Your task to perform on an android device: open a bookmark in the chrome app Image 0: 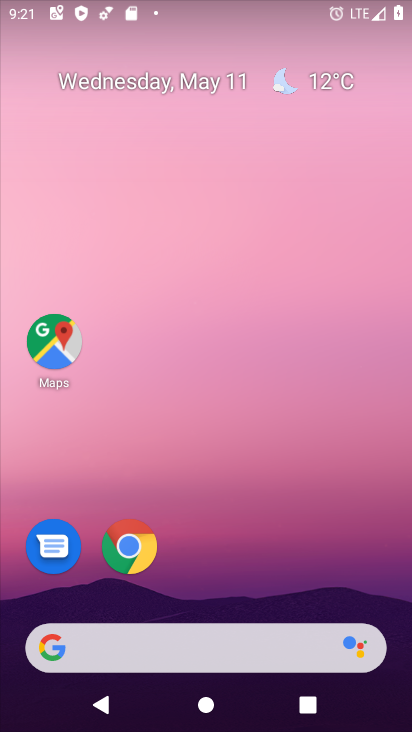
Step 0: click (131, 549)
Your task to perform on an android device: open a bookmark in the chrome app Image 1: 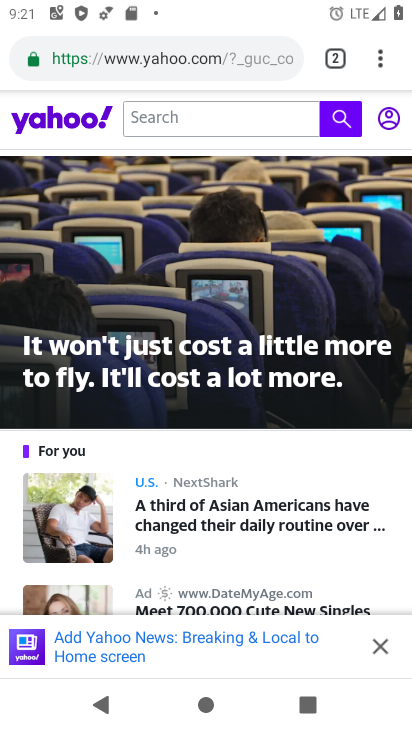
Step 1: click (378, 63)
Your task to perform on an android device: open a bookmark in the chrome app Image 2: 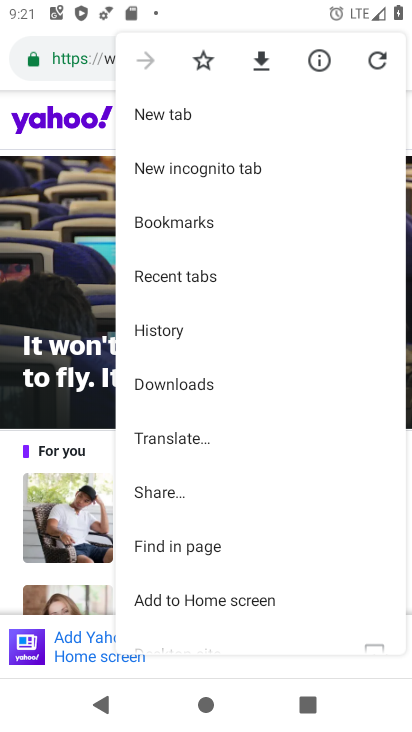
Step 2: click (163, 219)
Your task to perform on an android device: open a bookmark in the chrome app Image 3: 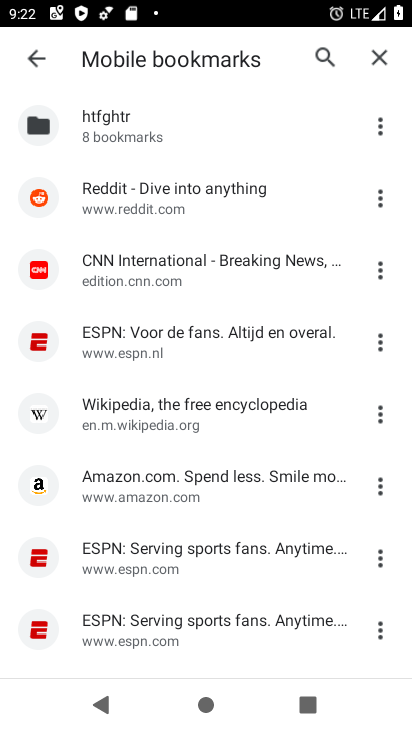
Step 3: task complete